Your task to perform on an android device: Open settings Image 0: 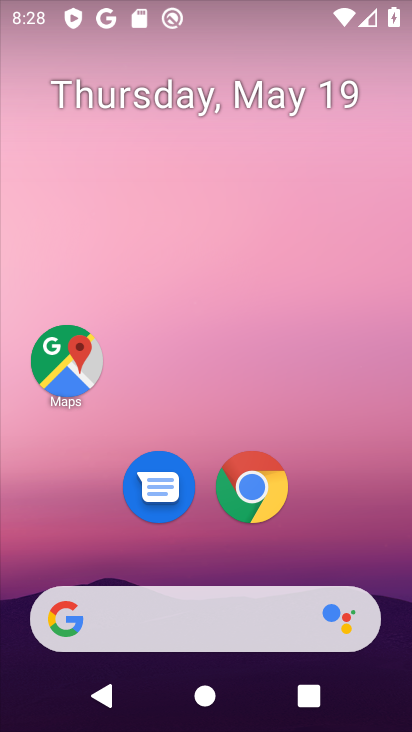
Step 0: drag from (223, 586) to (400, 331)
Your task to perform on an android device: Open settings Image 1: 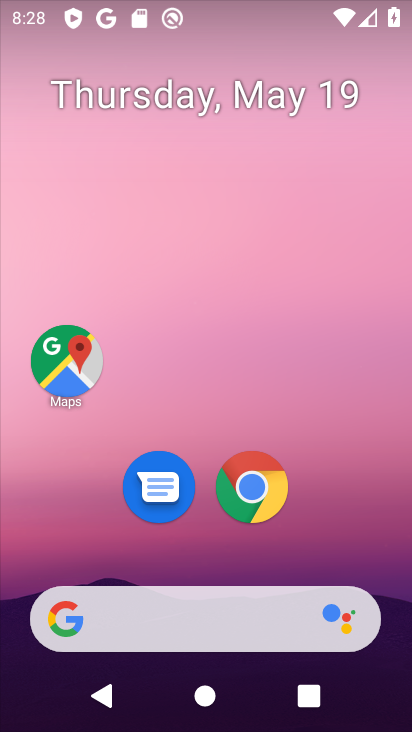
Step 1: drag from (224, 568) to (166, 11)
Your task to perform on an android device: Open settings Image 2: 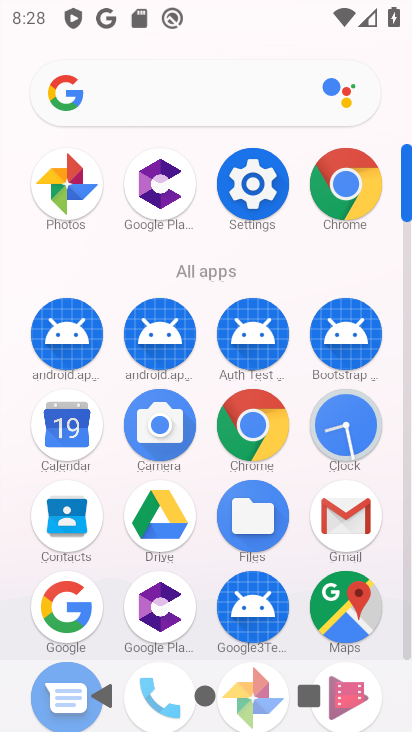
Step 2: click (262, 183)
Your task to perform on an android device: Open settings Image 3: 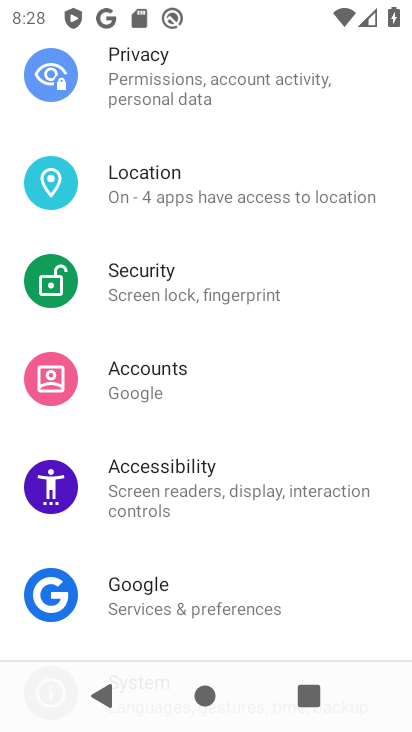
Step 3: task complete